Your task to perform on an android device: Go to location settings Image 0: 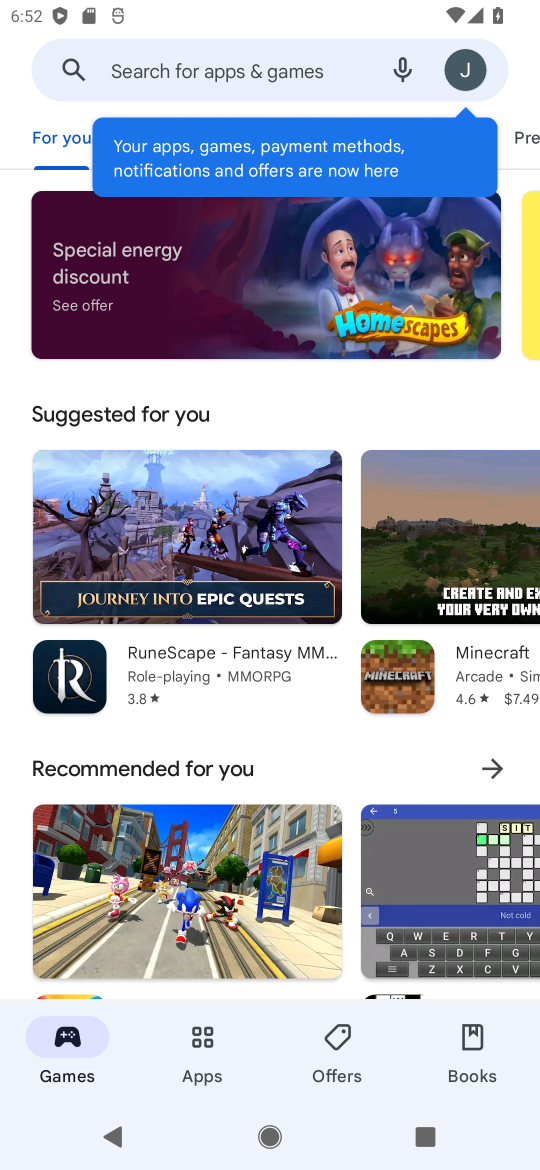
Step 0: press home button
Your task to perform on an android device: Go to location settings Image 1: 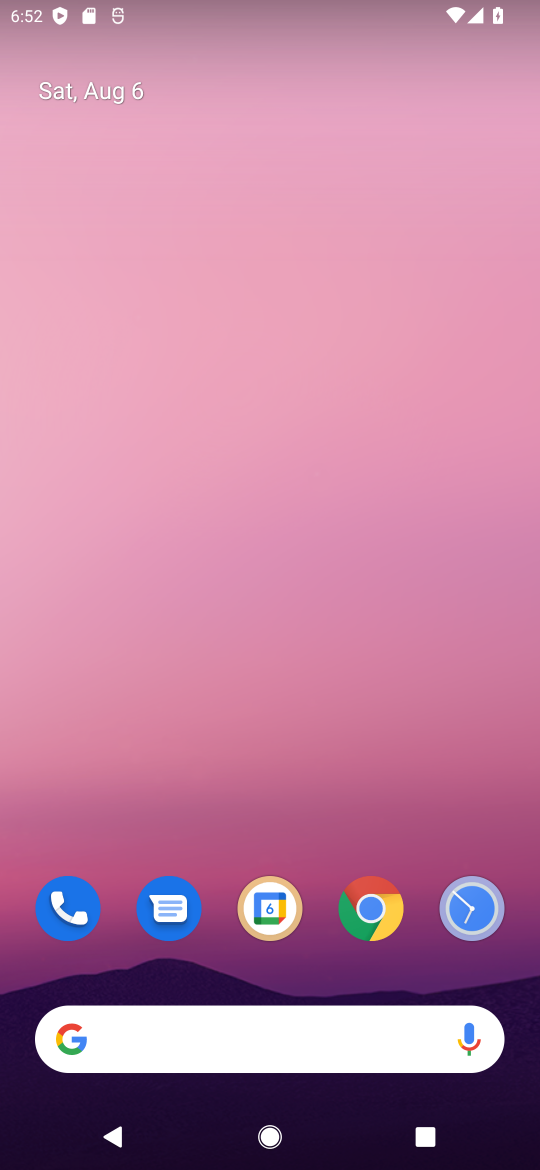
Step 1: drag from (325, 856) to (260, 16)
Your task to perform on an android device: Go to location settings Image 2: 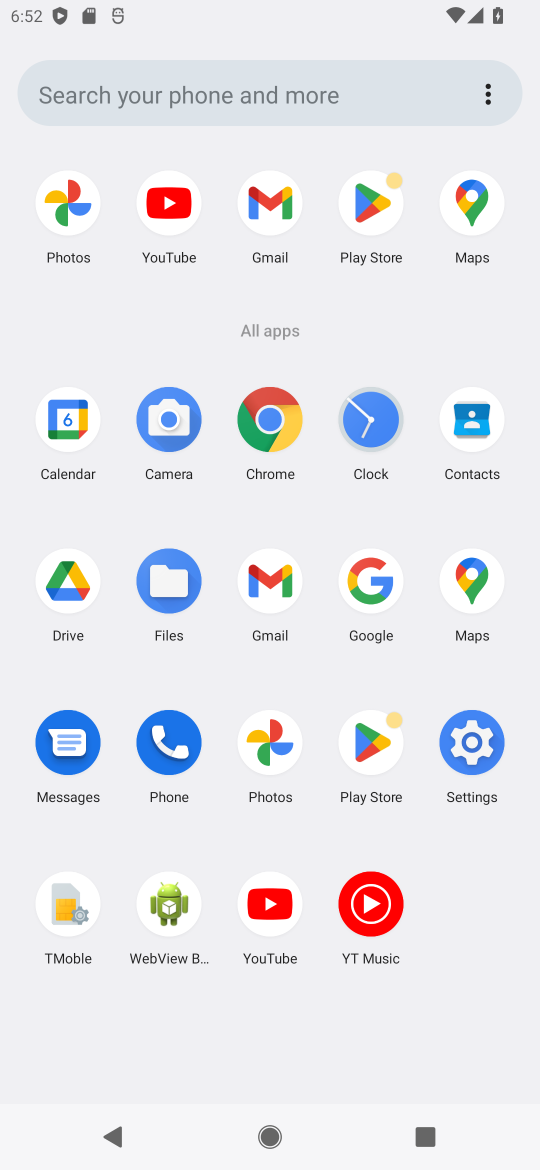
Step 2: click (483, 747)
Your task to perform on an android device: Go to location settings Image 3: 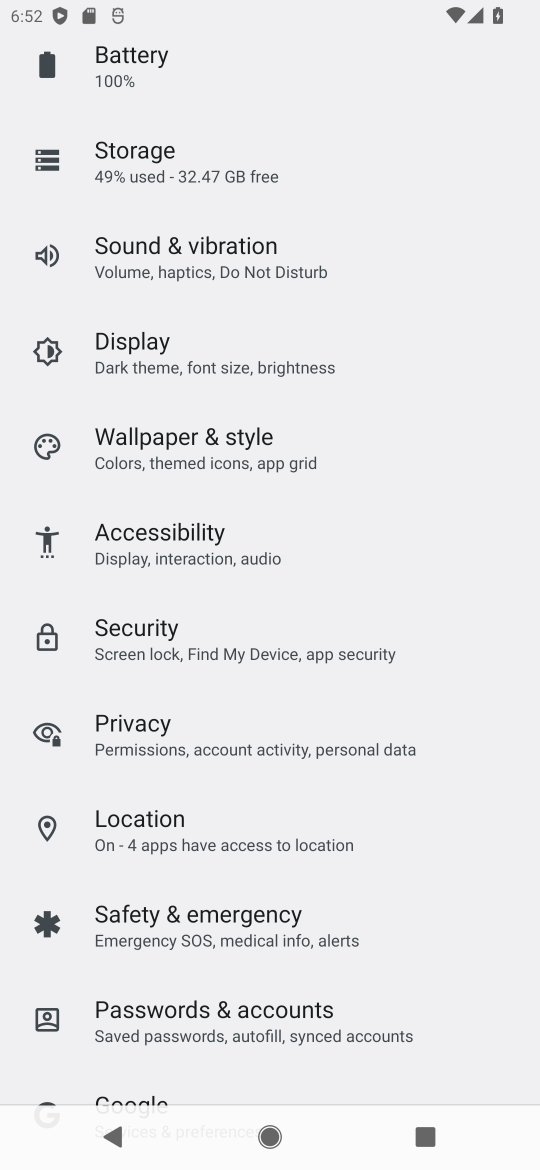
Step 3: click (223, 842)
Your task to perform on an android device: Go to location settings Image 4: 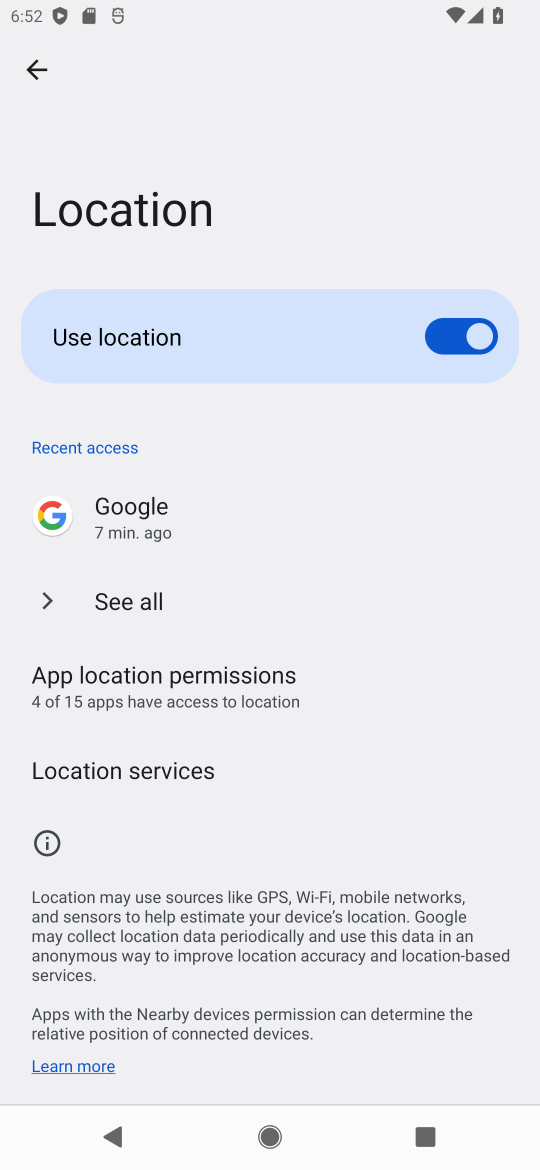
Step 4: task complete